Your task to perform on an android device: toggle sleep mode Image 0: 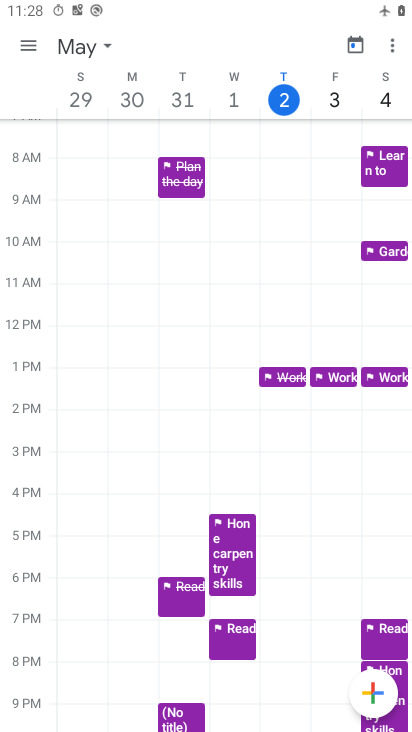
Step 0: press home button
Your task to perform on an android device: toggle sleep mode Image 1: 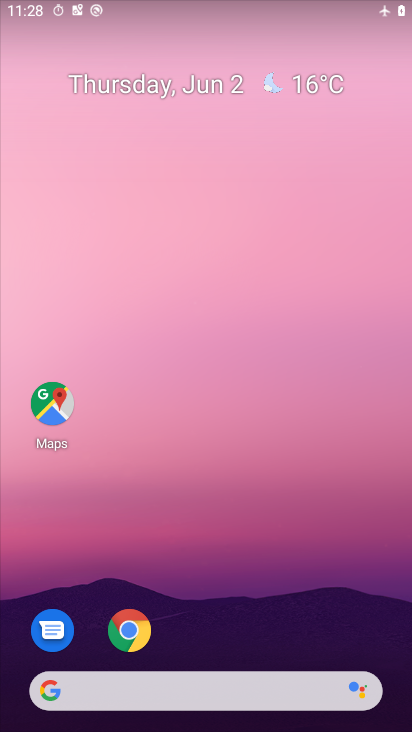
Step 1: drag from (240, 652) to (273, 4)
Your task to perform on an android device: toggle sleep mode Image 2: 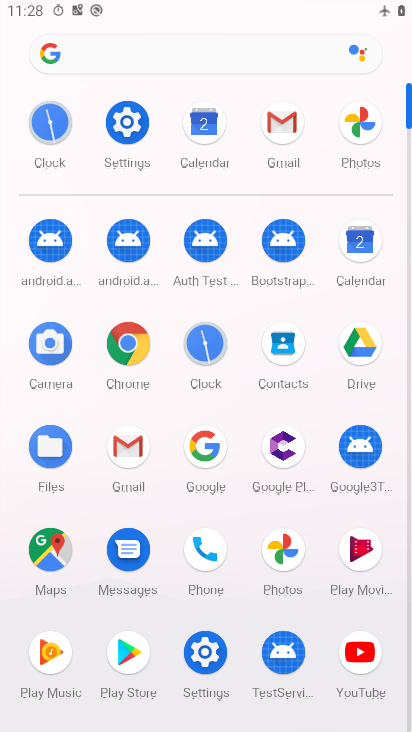
Step 2: click (124, 152)
Your task to perform on an android device: toggle sleep mode Image 3: 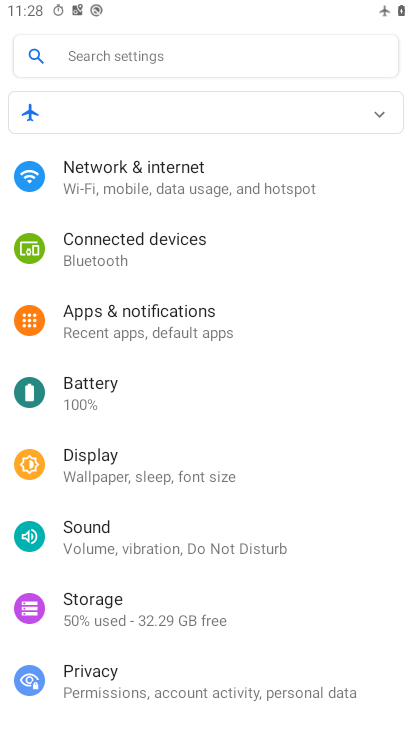
Step 3: click (184, 50)
Your task to perform on an android device: toggle sleep mode Image 4: 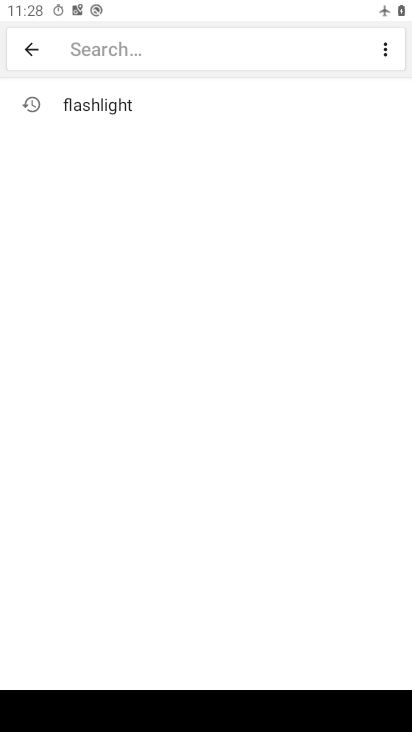
Step 4: type "sleep mode"
Your task to perform on an android device: toggle sleep mode Image 5: 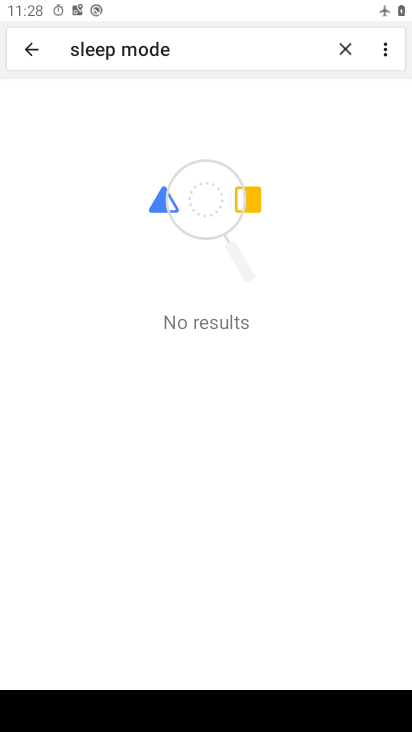
Step 5: task complete